Your task to perform on an android device: toggle location history Image 0: 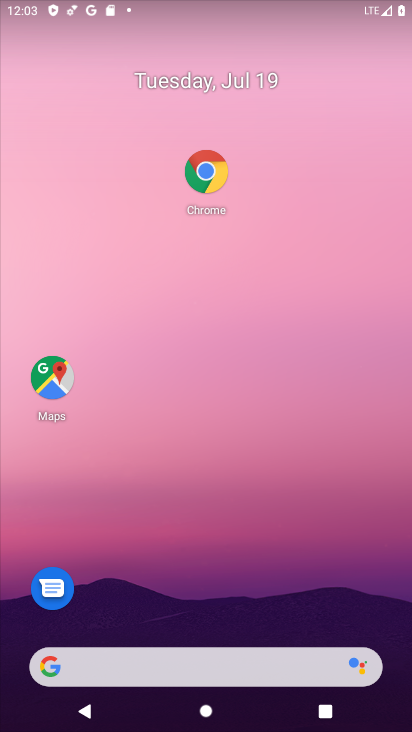
Step 0: drag from (191, 633) to (262, 17)
Your task to perform on an android device: toggle location history Image 1: 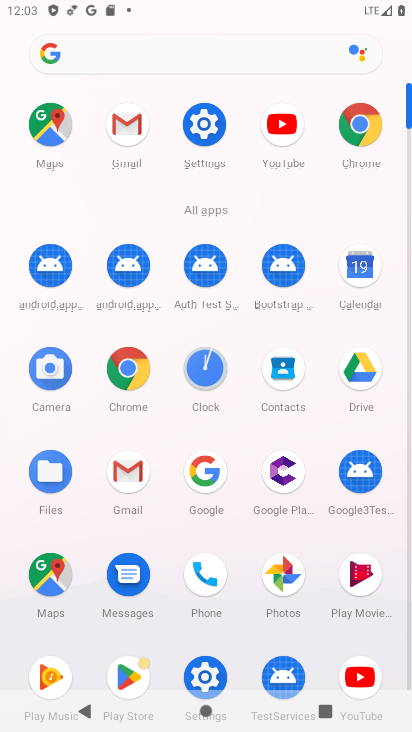
Step 1: click (209, 117)
Your task to perform on an android device: toggle location history Image 2: 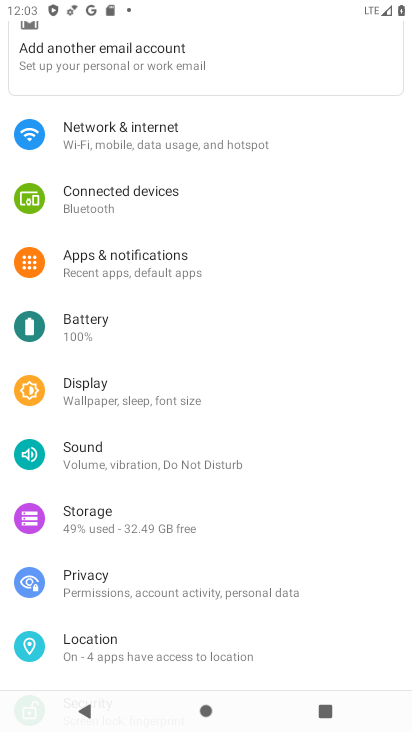
Step 2: click (113, 659)
Your task to perform on an android device: toggle location history Image 3: 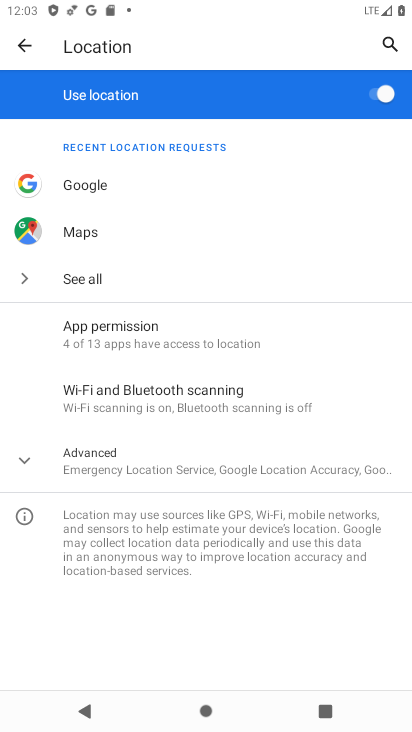
Step 3: click (159, 455)
Your task to perform on an android device: toggle location history Image 4: 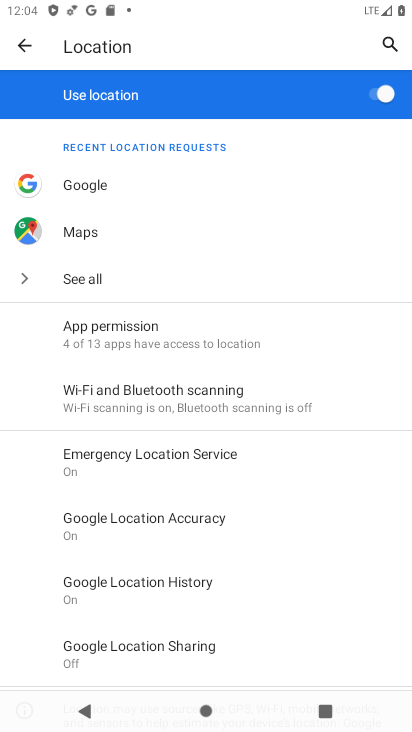
Step 4: click (166, 603)
Your task to perform on an android device: toggle location history Image 5: 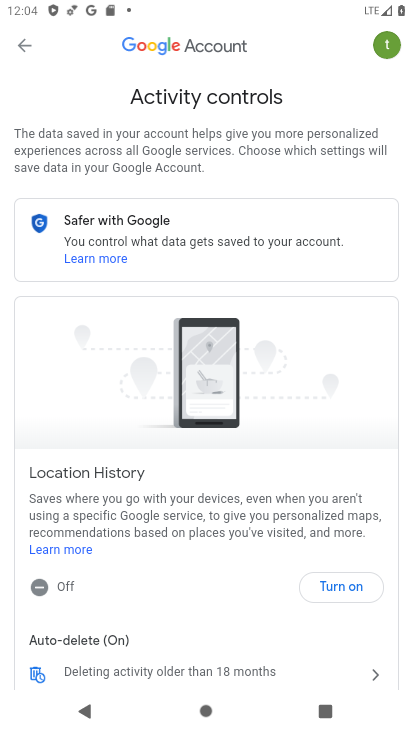
Step 5: click (332, 586)
Your task to perform on an android device: toggle location history Image 6: 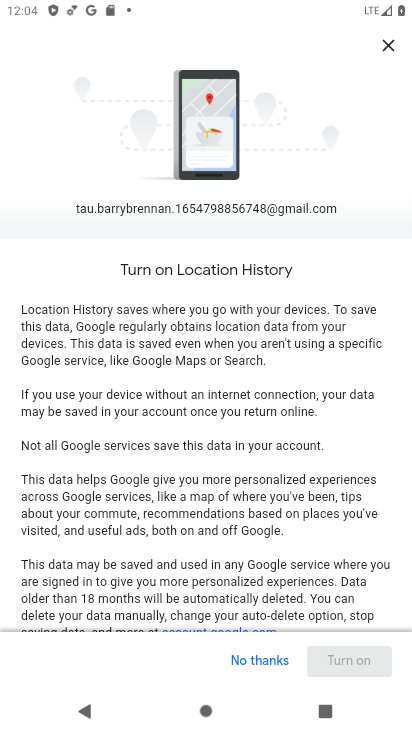
Step 6: drag from (155, 629) to (216, 318)
Your task to perform on an android device: toggle location history Image 7: 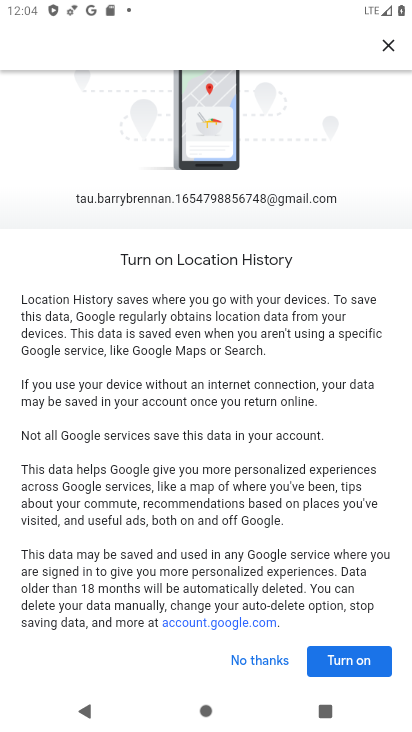
Step 7: click (355, 661)
Your task to perform on an android device: toggle location history Image 8: 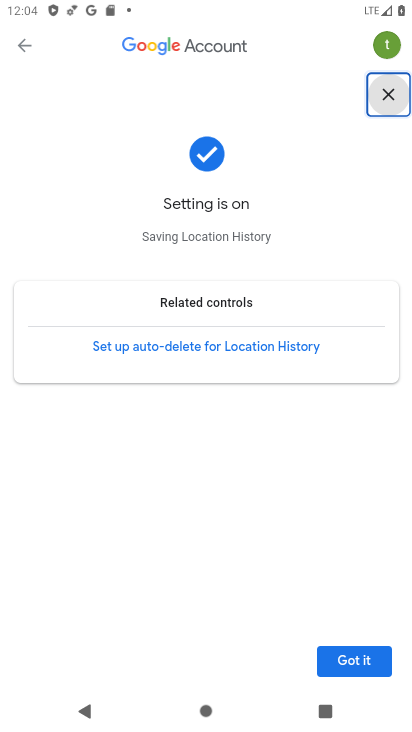
Step 8: task complete